Your task to perform on an android device: open app "Google Duo" Image 0: 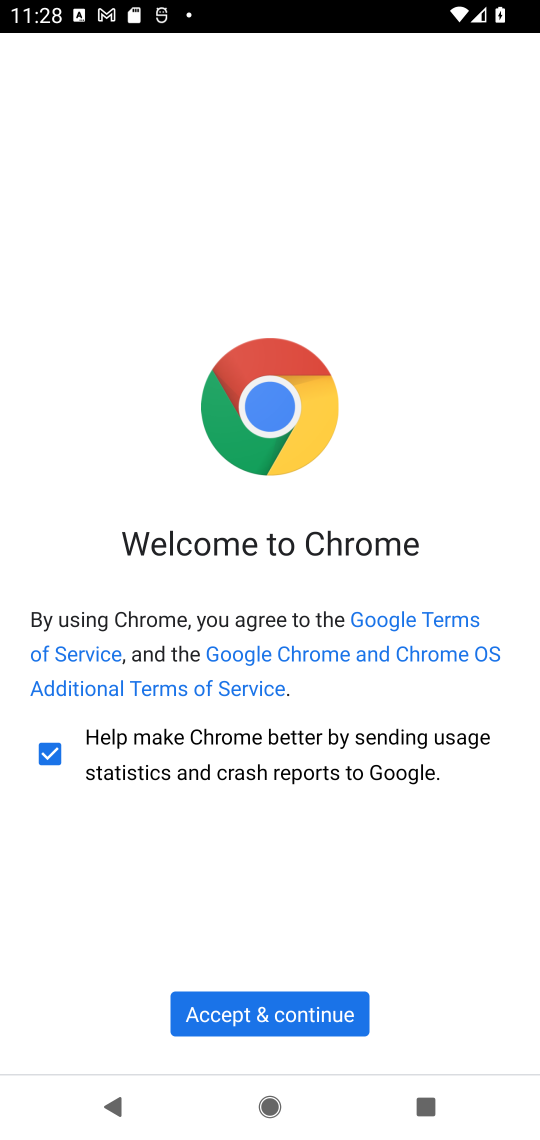
Step 0: press home button
Your task to perform on an android device: open app "Google Duo" Image 1: 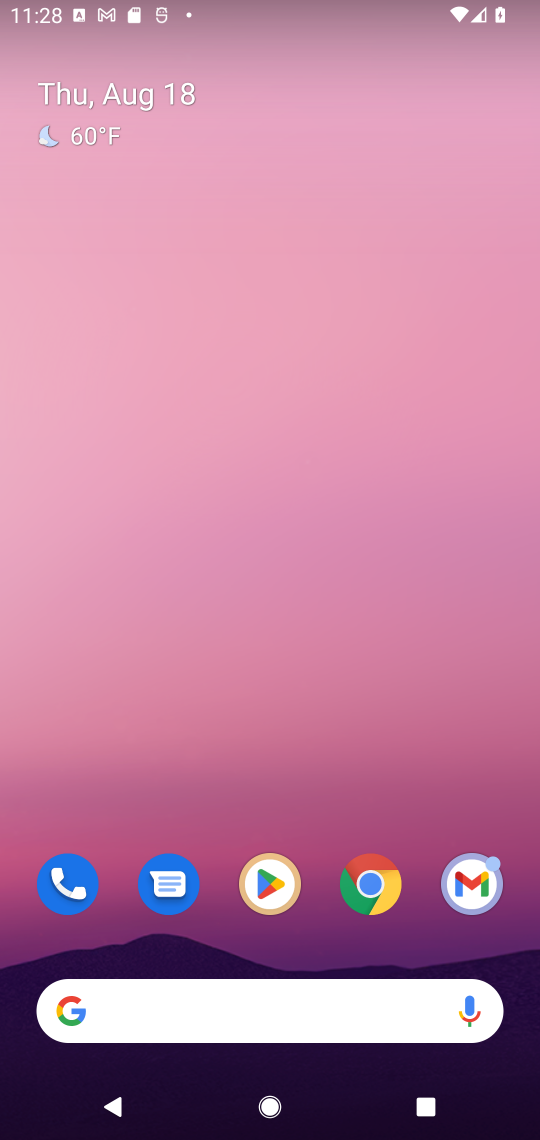
Step 1: drag from (237, 992) to (227, 174)
Your task to perform on an android device: open app "Google Duo" Image 2: 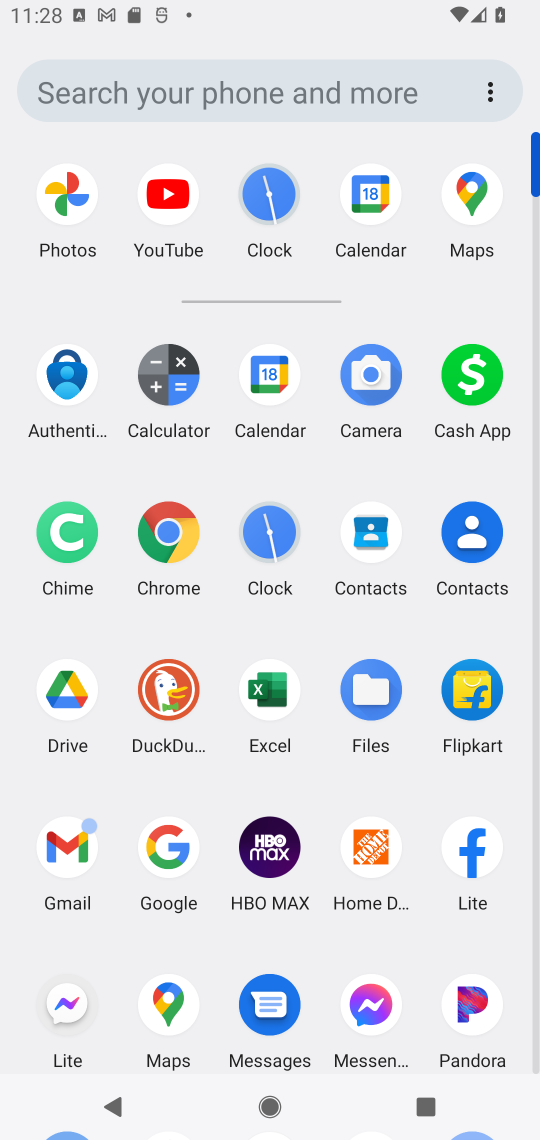
Step 2: drag from (331, 962) to (375, 551)
Your task to perform on an android device: open app "Google Duo" Image 3: 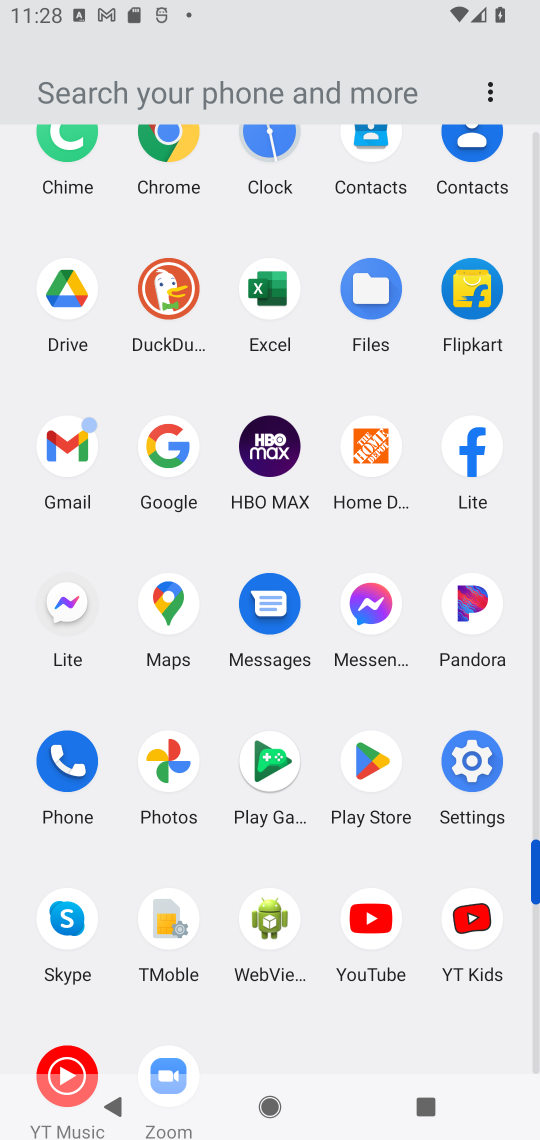
Step 3: click (379, 770)
Your task to perform on an android device: open app "Google Duo" Image 4: 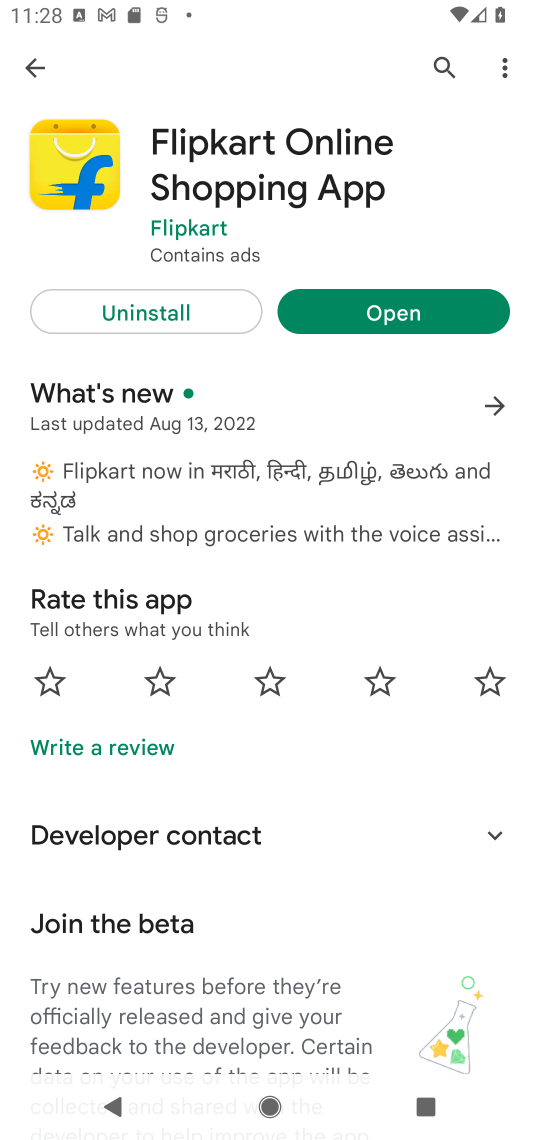
Step 4: press back button
Your task to perform on an android device: open app "Google Duo" Image 5: 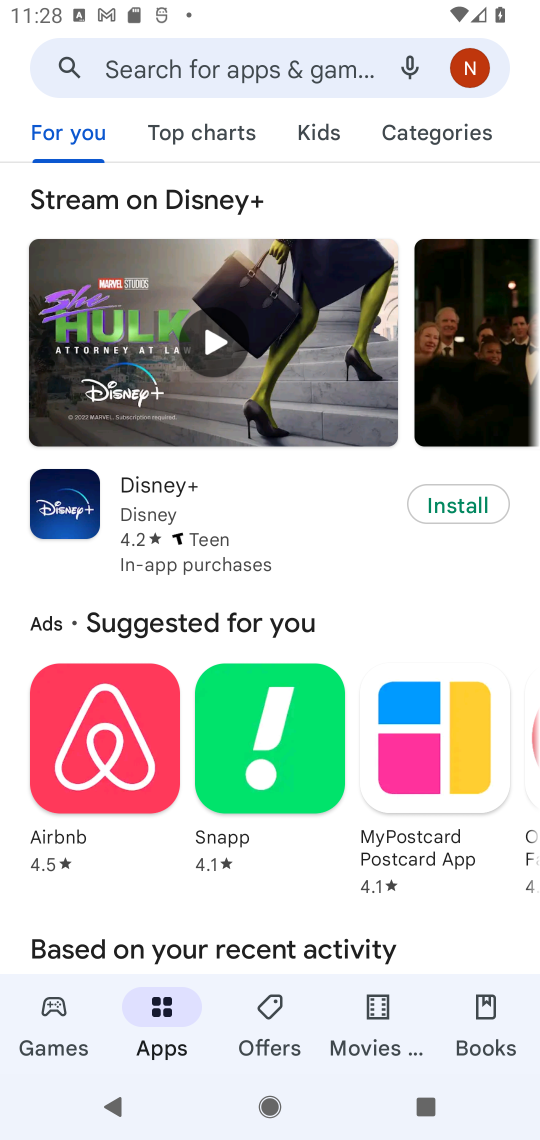
Step 5: click (316, 58)
Your task to perform on an android device: open app "Google Duo" Image 6: 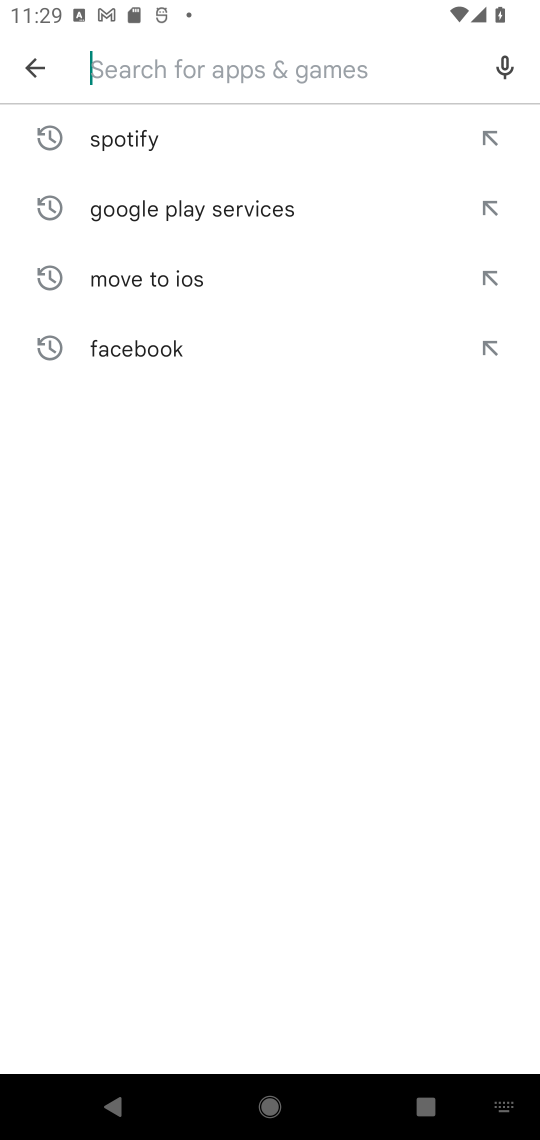
Step 6: type "Google Duo"
Your task to perform on an android device: open app "Google Duo" Image 7: 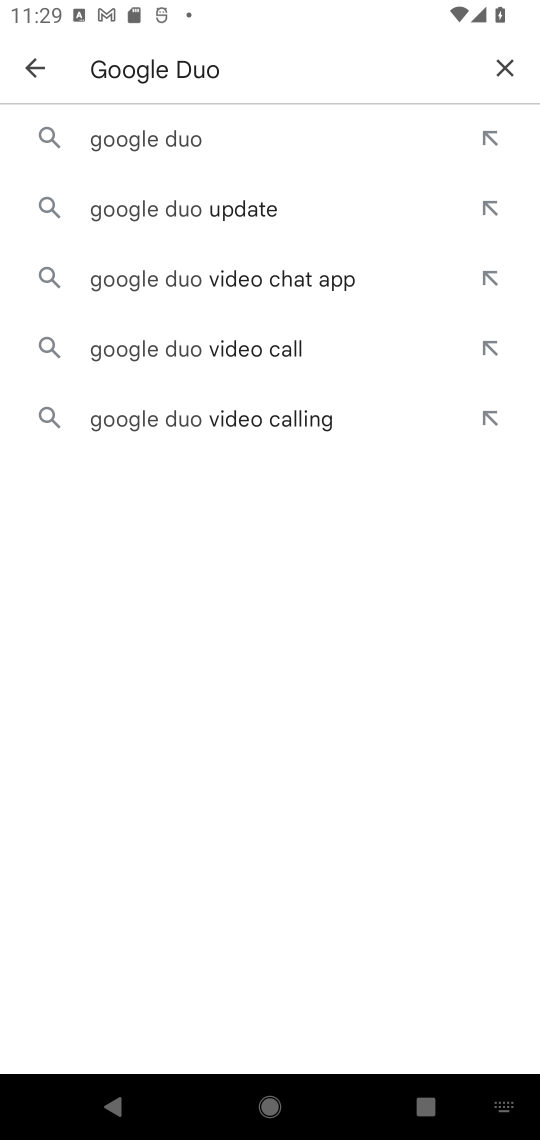
Step 7: click (172, 138)
Your task to perform on an android device: open app "Google Duo" Image 8: 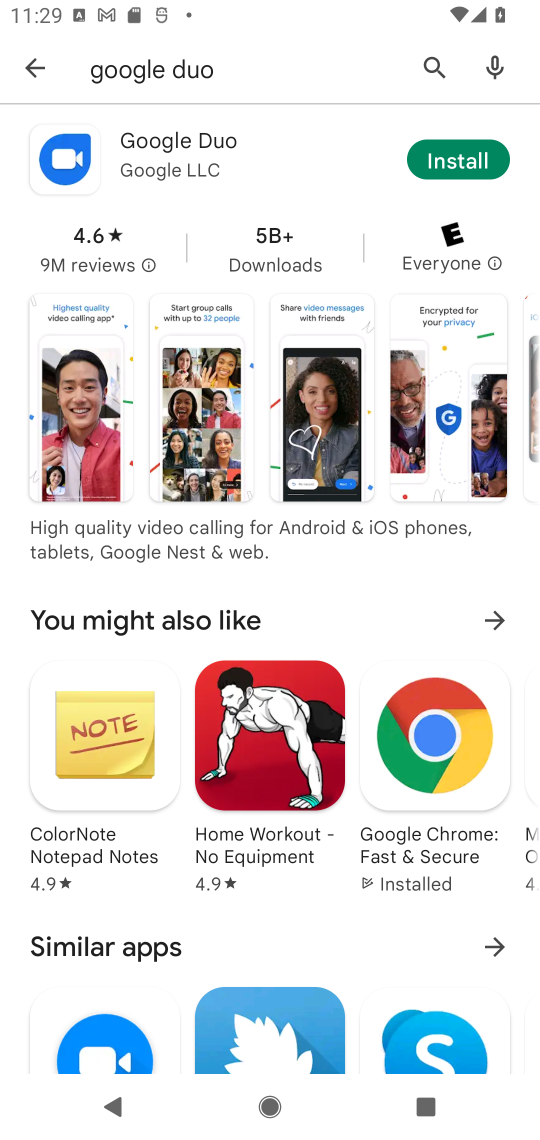
Step 8: task complete